Your task to perform on an android device: Add "usb-c" to the cart on newegg Image 0: 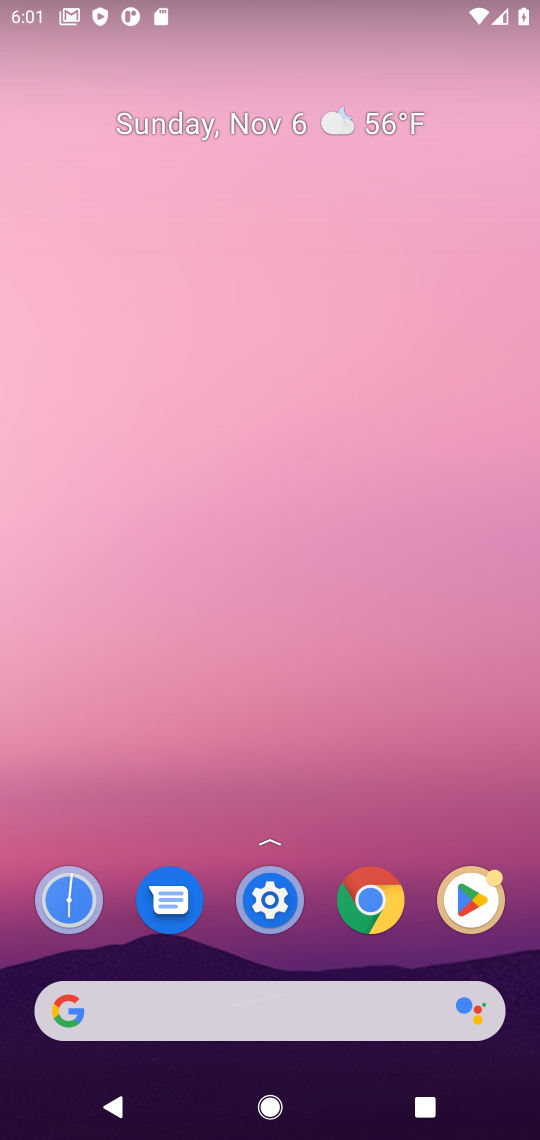
Step 0: drag from (307, 982) to (341, 77)
Your task to perform on an android device: Add "usb-c" to the cart on newegg Image 1: 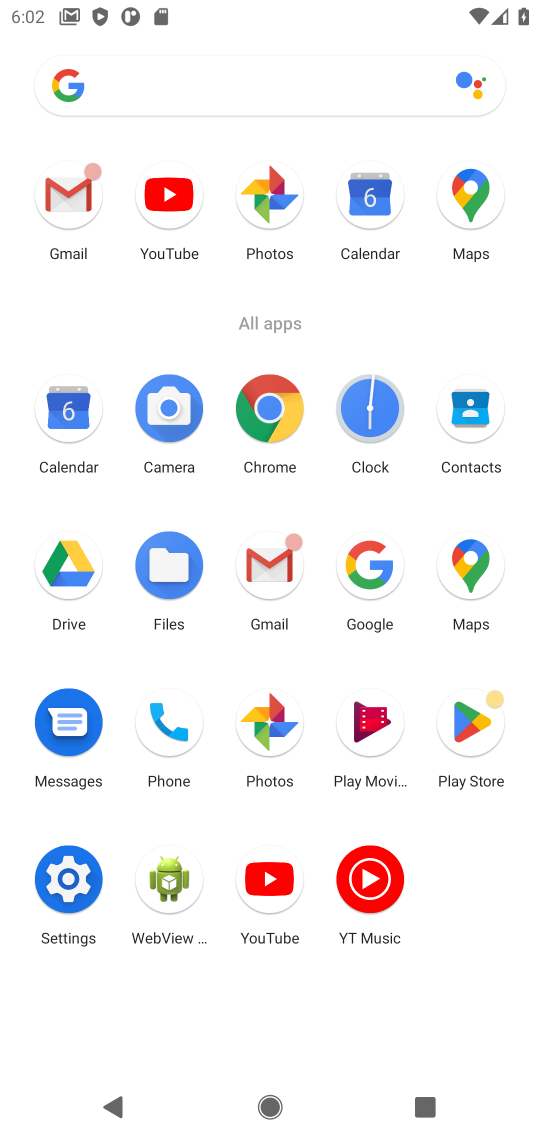
Step 1: click (279, 395)
Your task to perform on an android device: Add "usb-c" to the cart on newegg Image 2: 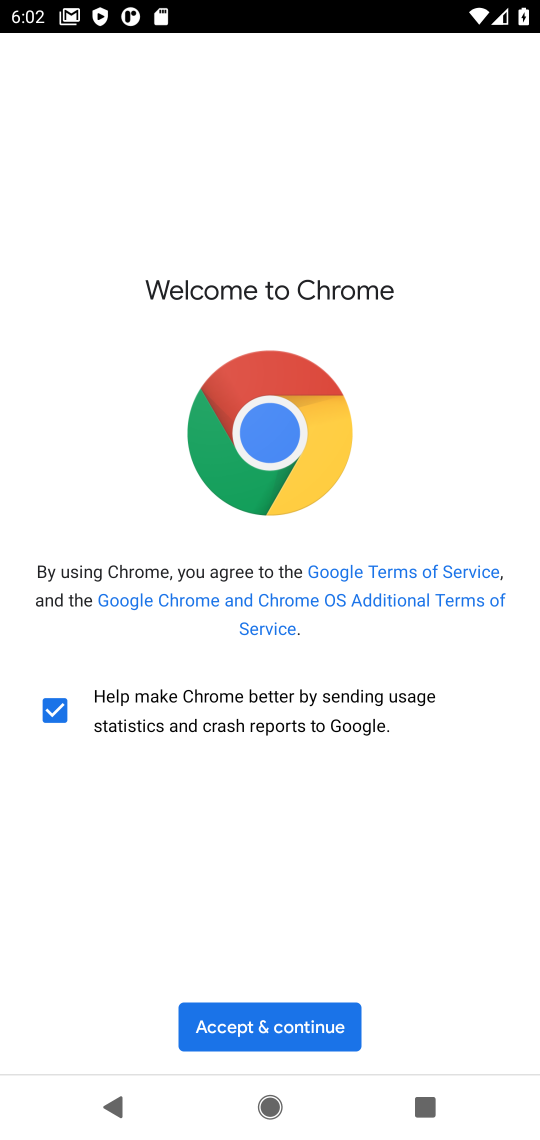
Step 2: click (234, 1004)
Your task to perform on an android device: Add "usb-c" to the cart on newegg Image 3: 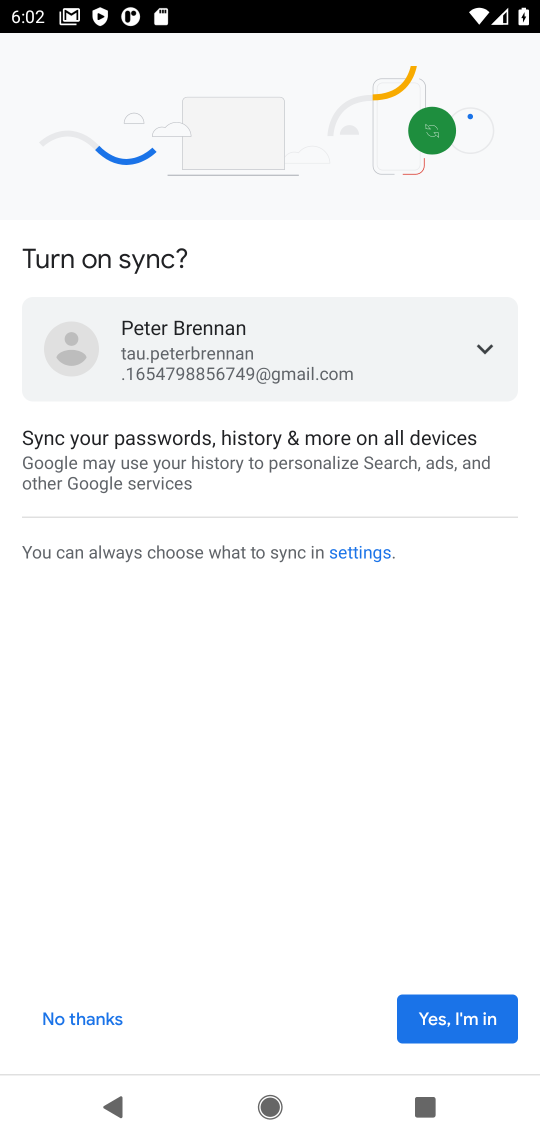
Step 3: click (458, 1024)
Your task to perform on an android device: Add "usb-c" to the cart on newegg Image 4: 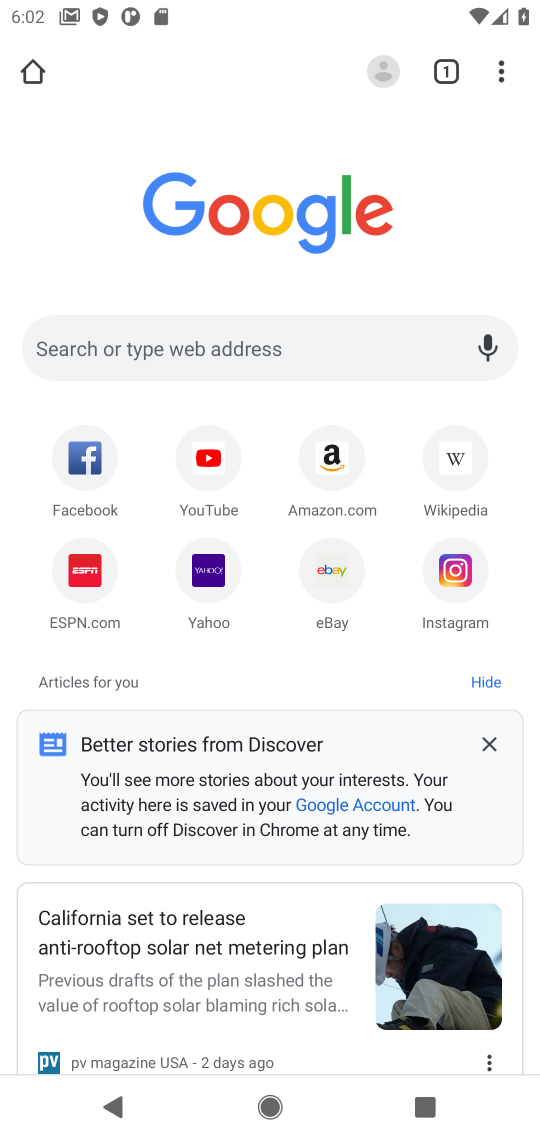
Step 4: click (294, 352)
Your task to perform on an android device: Add "usb-c" to the cart on newegg Image 5: 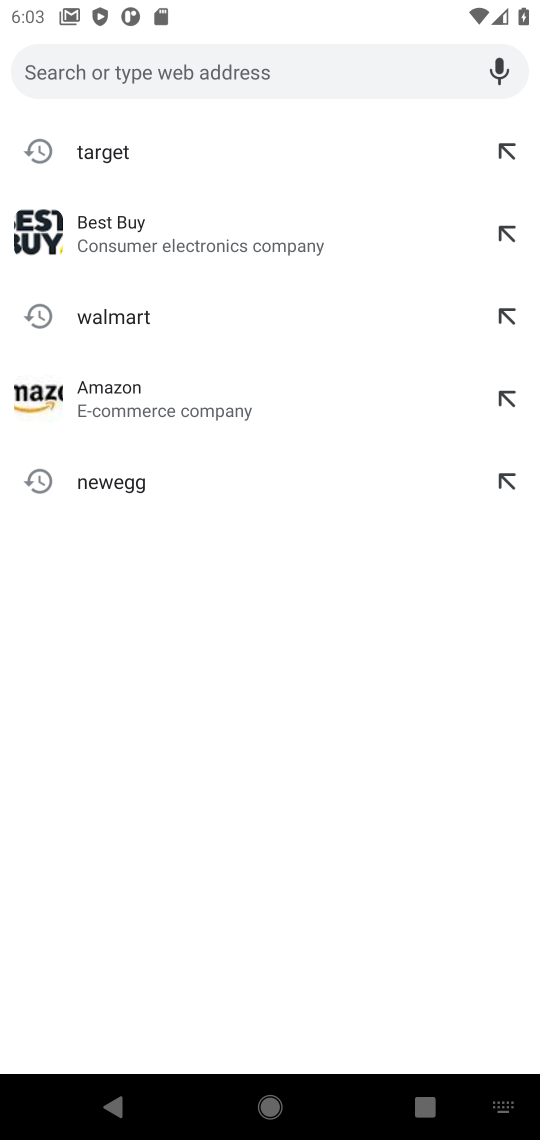
Step 5: type "newegg.com"
Your task to perform on an android device: Add "usb-c" to the cart on newegg Image 6: 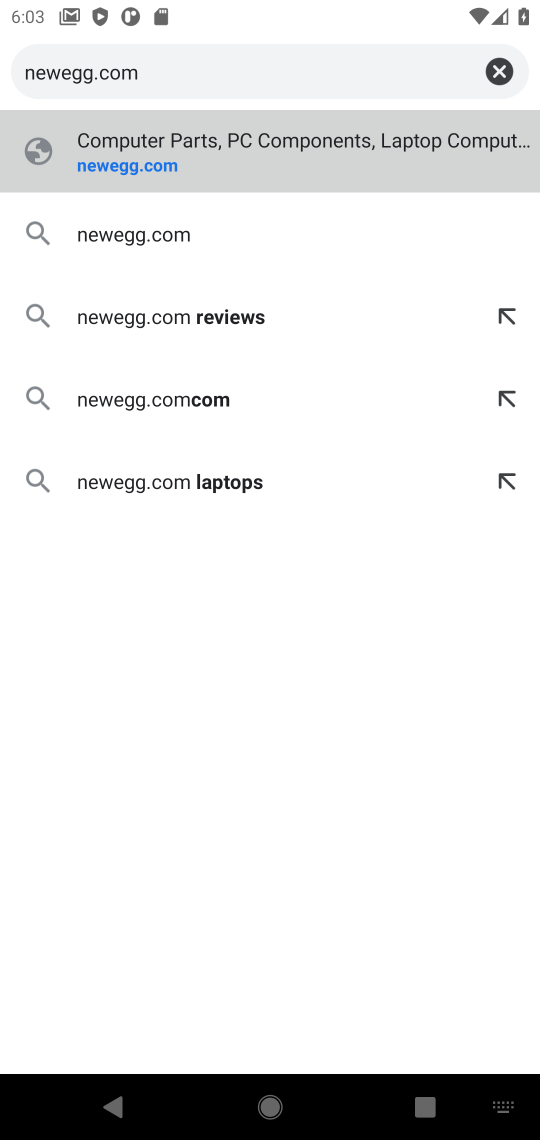
Step 6: press enter
Your task to perform on an android device: Add "usb-c" to the cart on newegg Image 7: 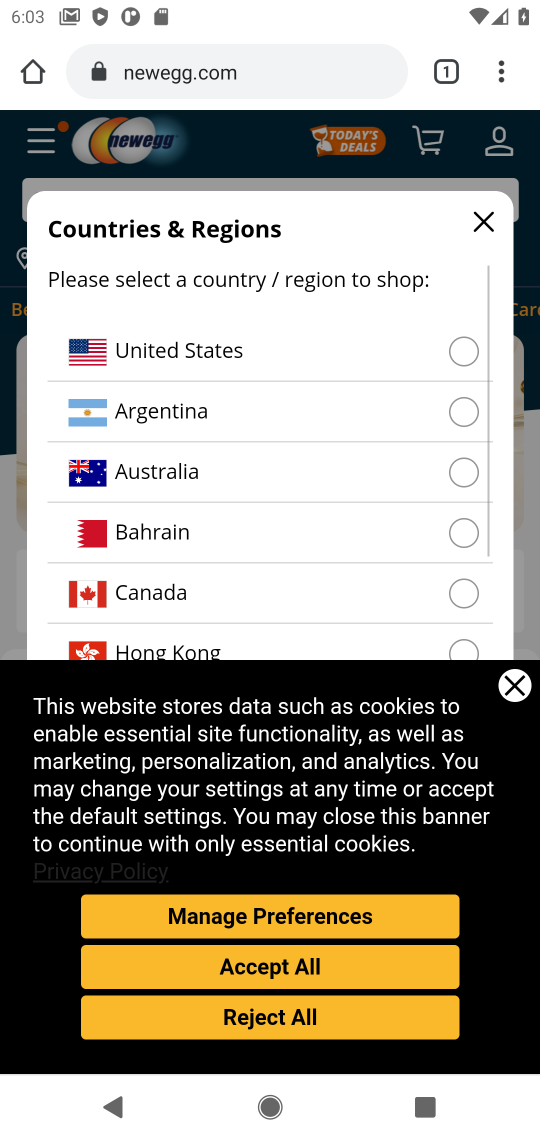
Step 7: click (487, 231)
Your task to perform on an android device: Add "usb-c" to the cart on newegg Image 8: 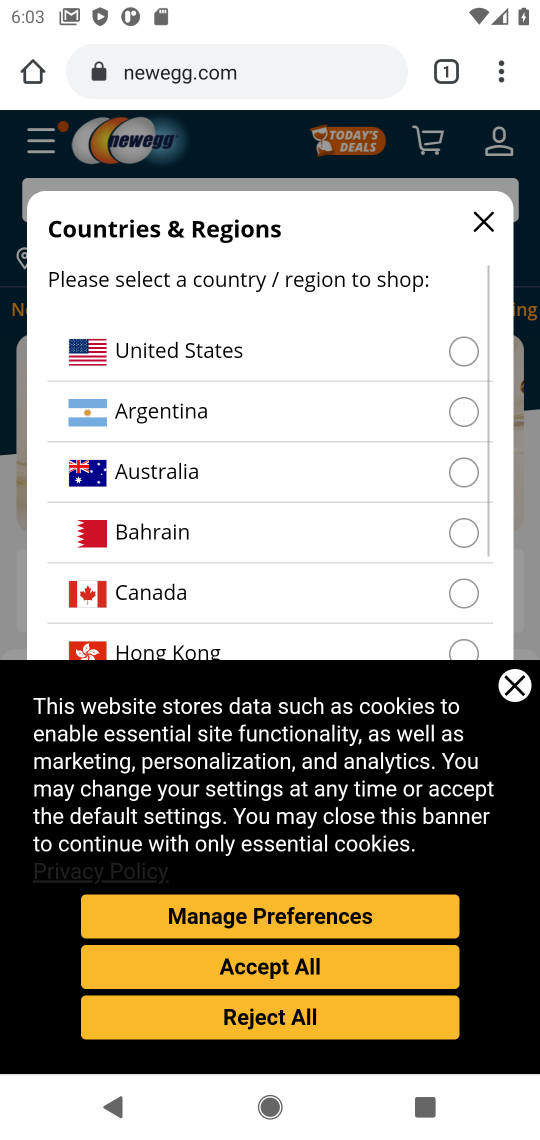
Step 8: click (485, 212)
Your task to perform on an android device: Add "usb-c" to the cart on newegg Image 9: 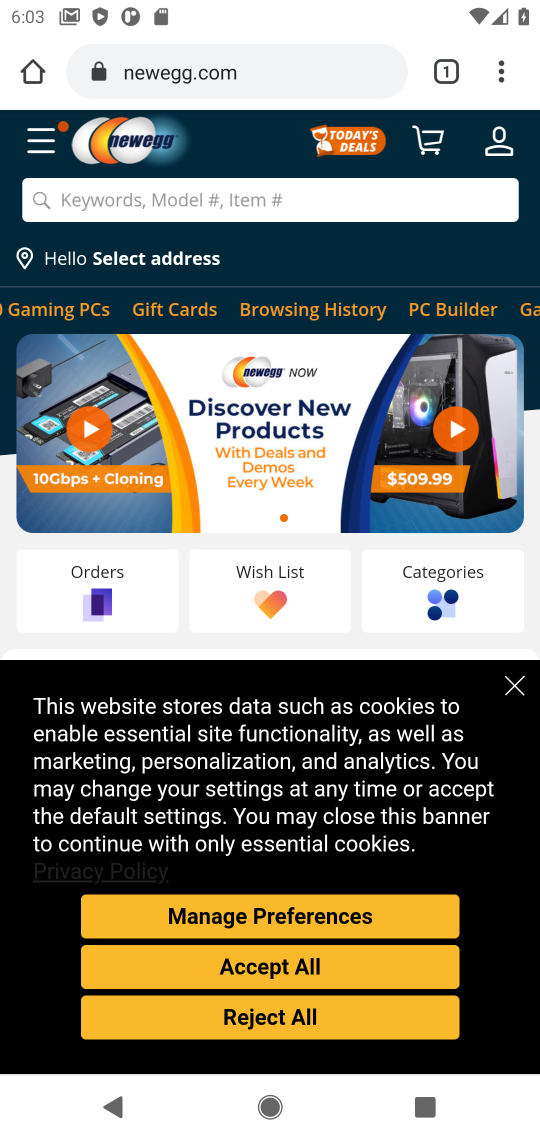
Step 9: click (249, 209)
Your task to perform on an android device: Add "usb-c" to the cart on newegg Image 10: 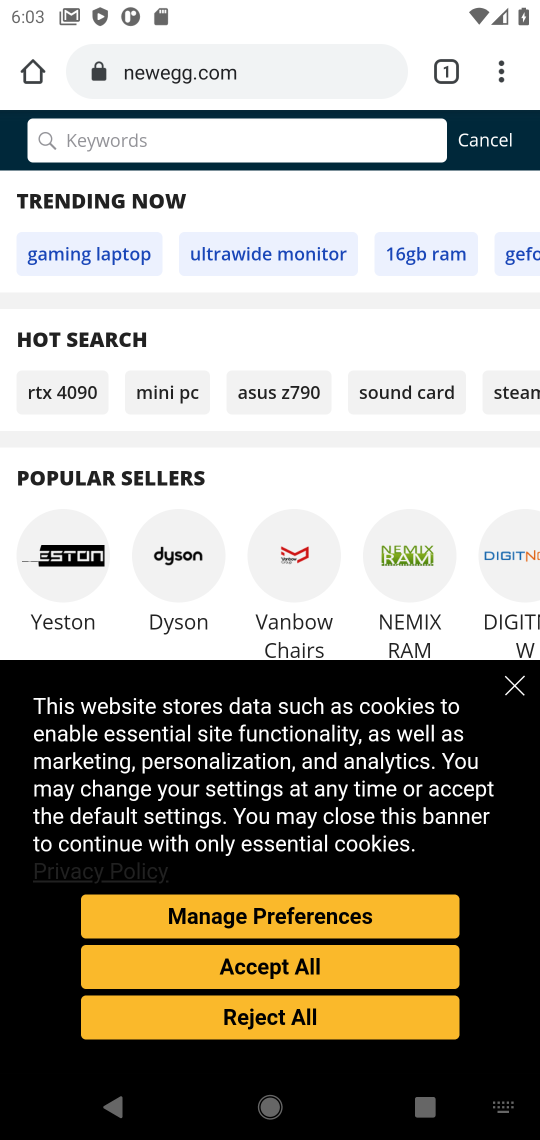
Step 10: type "usb-c"
Your task to perform on an android device: Add "usb-c" to the cart on newegg Image 11: 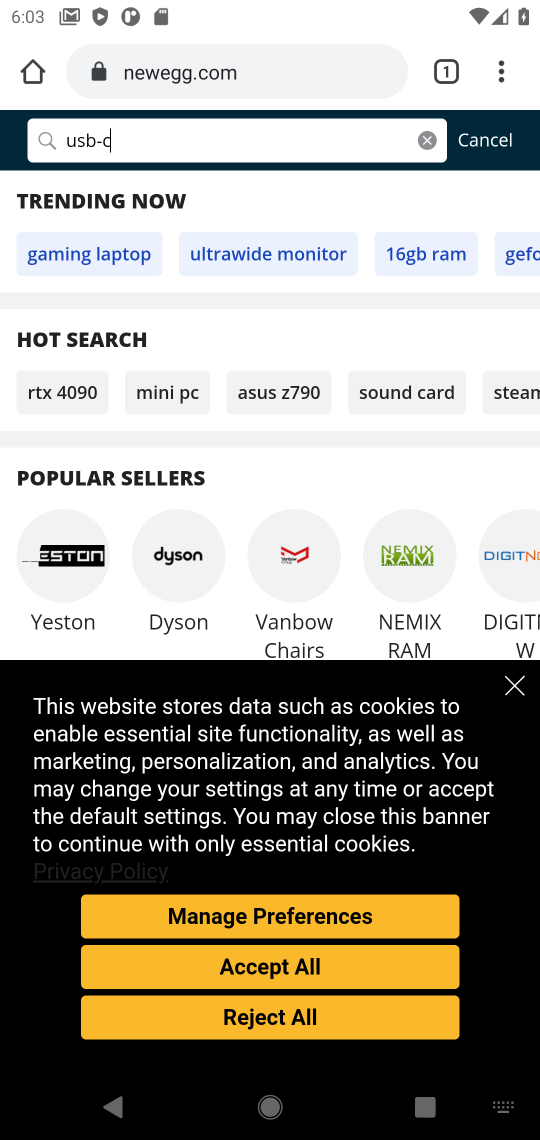
Step 11: press enter
Your task to perform on an android device: Add "usb-c" to the cart on newegg Image 12: 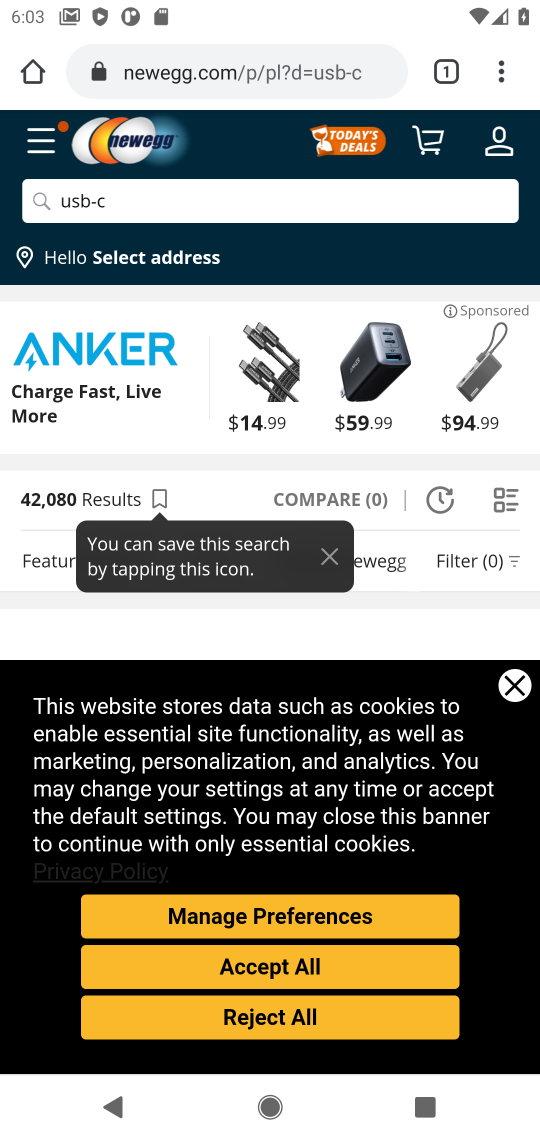
Step 12: drag from (362, 524) to (507, 313)
Your task to perform on an android device: Add "usb-c" to the cart on newegg Image 13: 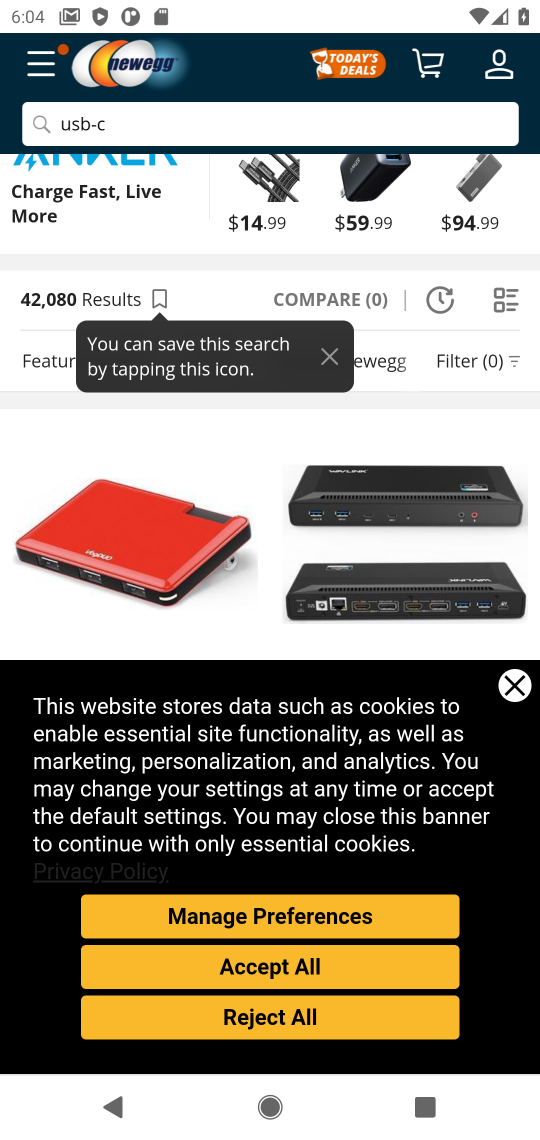
Step 13: click (327, 959)
Your task to perform on an android device: Add "usb-c" to the cart on newegg Image 14: 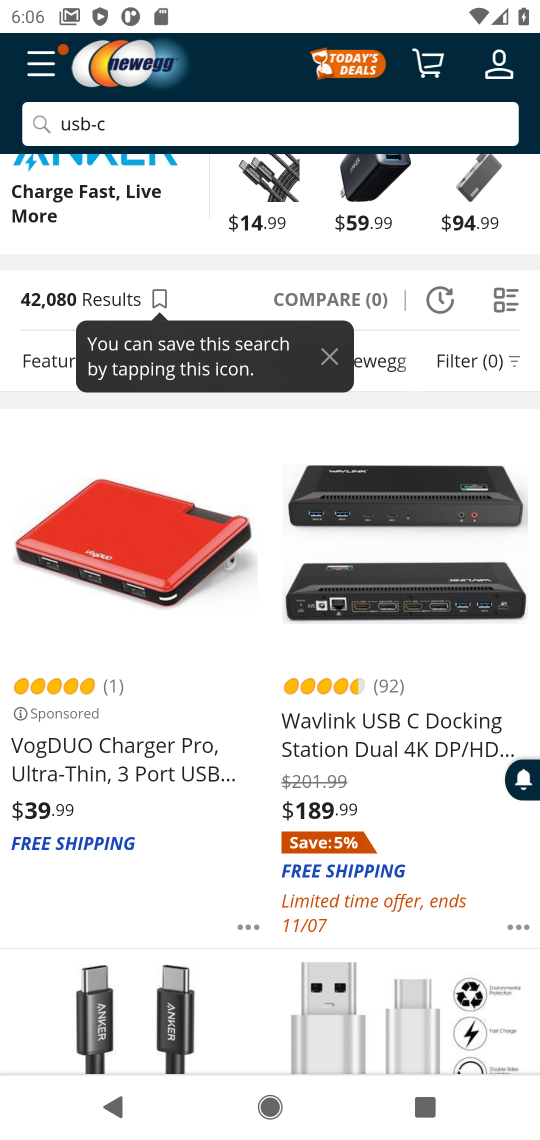
Step 14: click (450, 749)
Your task to perform on an android device: Add "usb-c" to the cart on newegg Image 15: 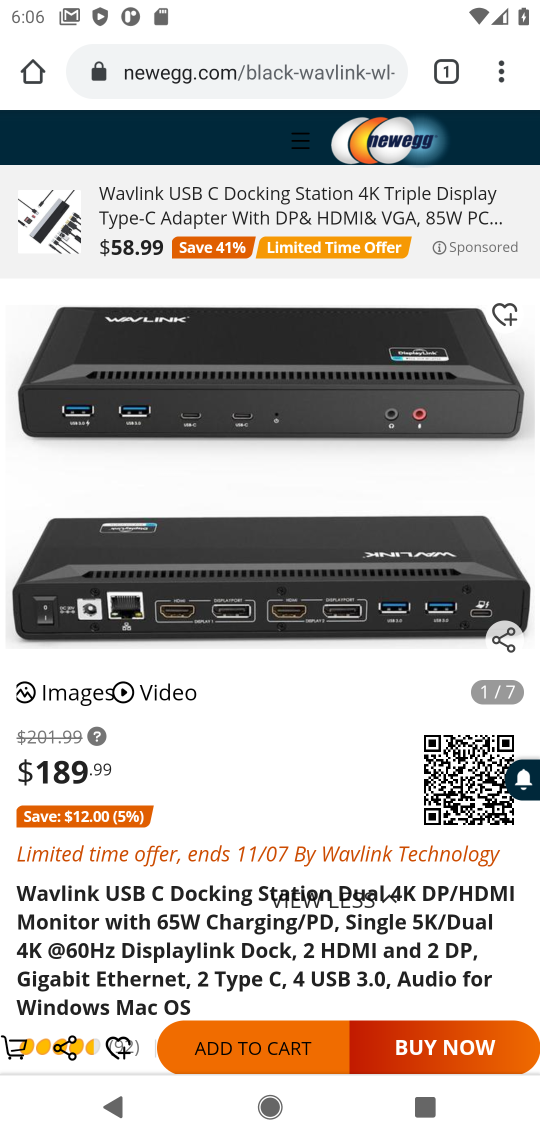
Step 15: click (235, 1049)
Your task to perform on an android device: Add "usb-c" to the cart on newegg Image 16: 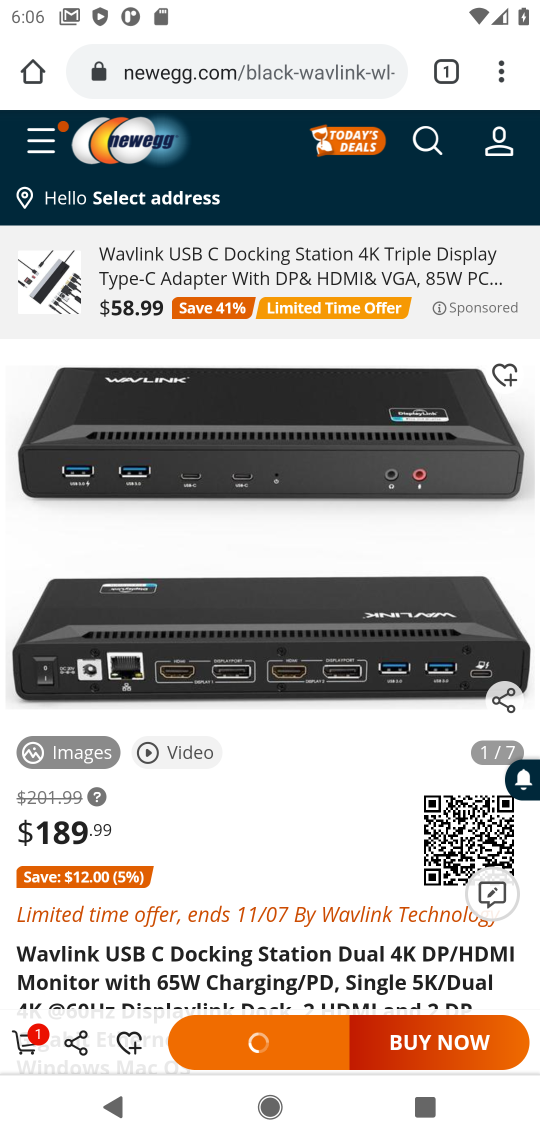
Step 16: task complete